Your task to perform on an android device: set the timer Image 0: 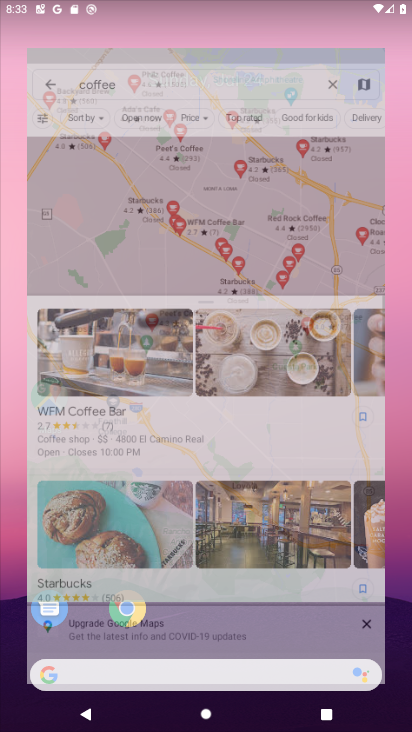
Step 0: drag from (207, 634) to (294, 52)
Your task to perform on an android device: set the timer Image 1: 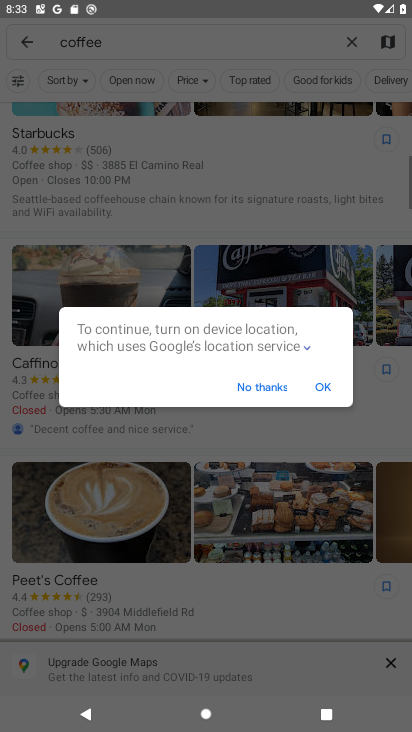
Step 1: press home button
Your task to perform on an android device: set the timer Image 2: 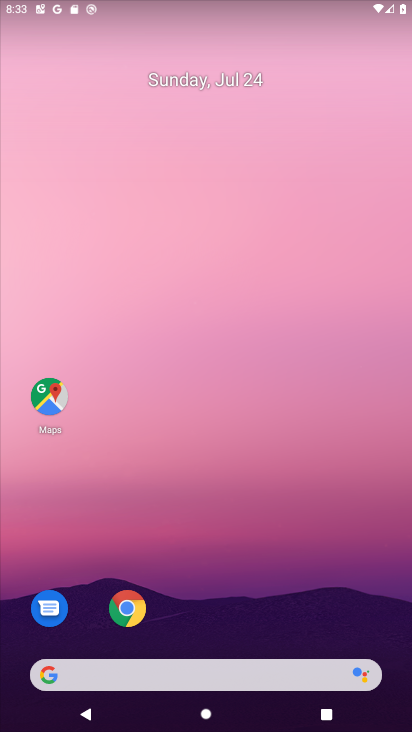
Step 2: drag from (218, 625) to (254, 143)
Your task to perform on an android device: set the timer Image 3: 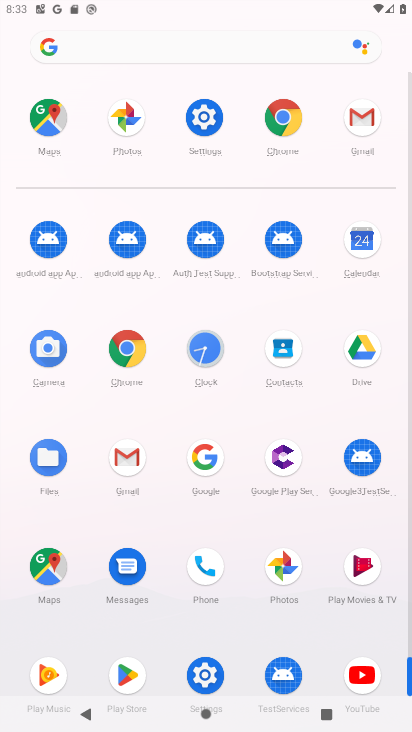
Step 3: click (219, 351)
Your task to perform on an android device: set the timer Image 4: 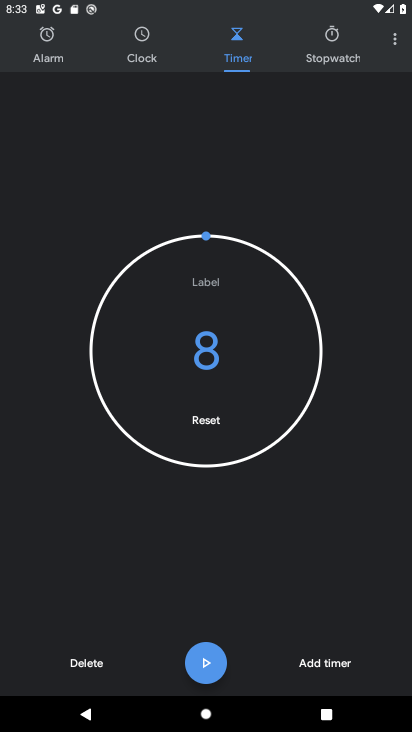
Step 4: click (210, 660)
Your task to perform on an android device: set the timer Image 5: 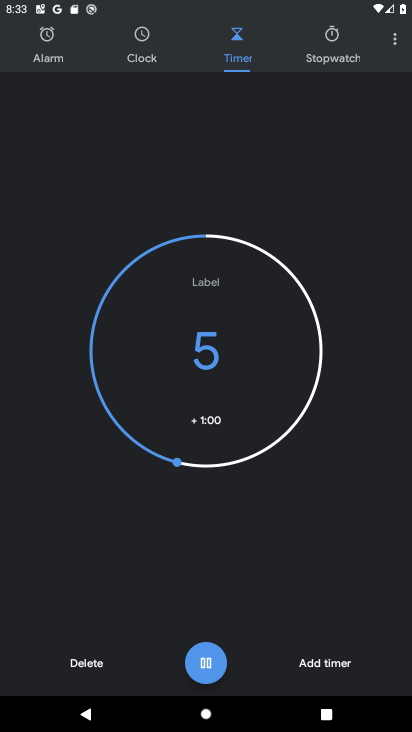
Step 5: task complete